Your task to perform on an android device: change alarm snooze length Image 0: 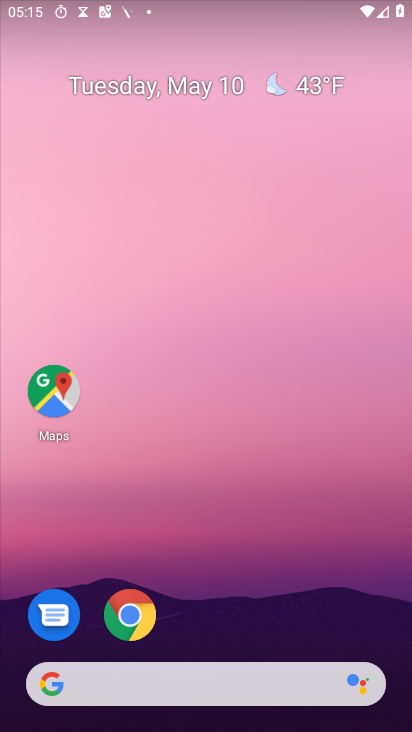
Step 0: drag from (302, 657) to (313, 66)
Your task to perform on an android device: change alarm snooze length Image 1: 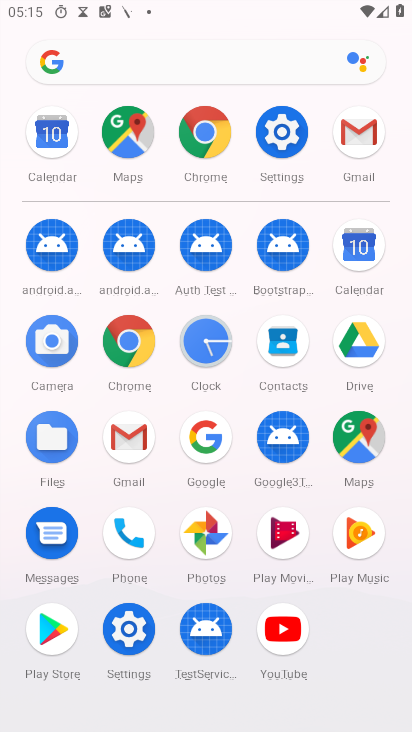
Step 1: click (205, 349)
Your task to perform on an android device: change alarm snooze length Image 2: 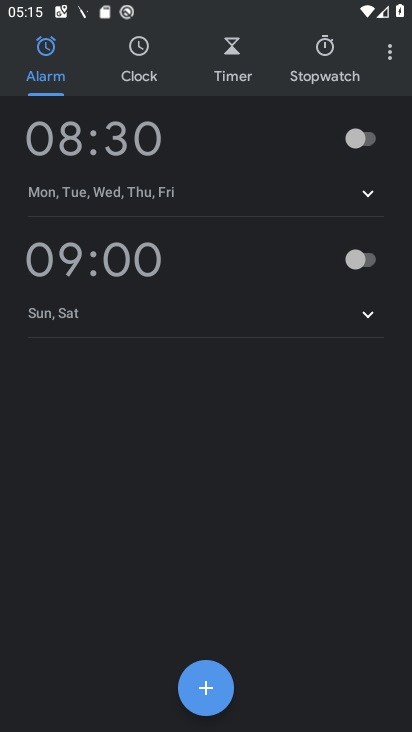
Step 2: click (384, 54)
Your task to perform on an android device: change alarm snooze length Image 3: 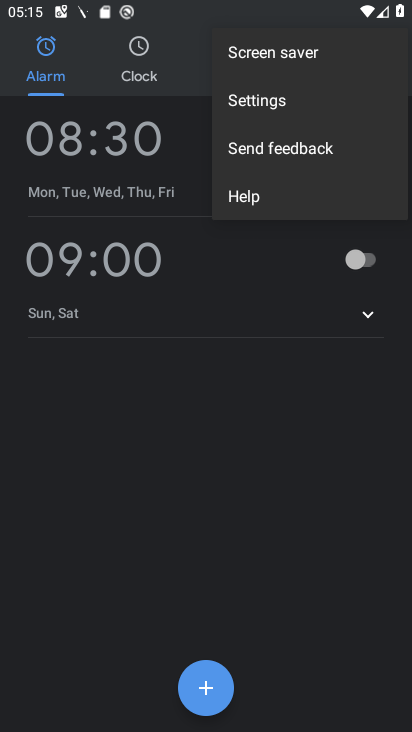
Step 3: click (285, 112)
Your task to perform on an android device: change alarm snooze length Image 4: 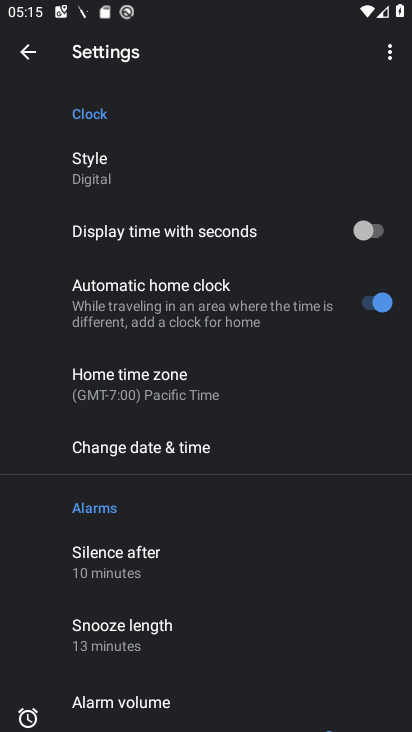
Step 4: click (190, 635)
Your task to perform on an android device: change alarm snooze length Image 5: 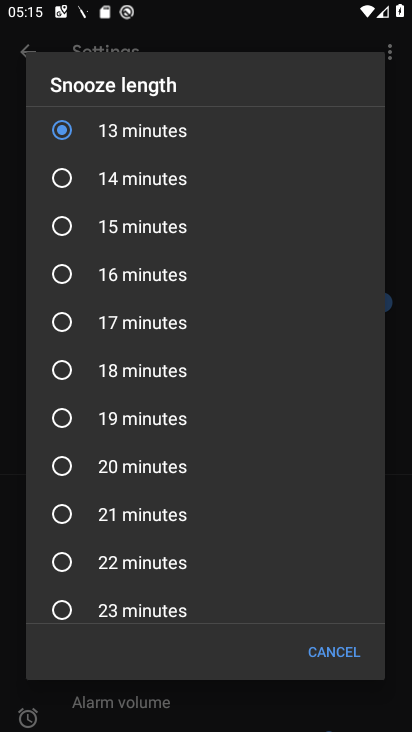
Step 5: click (67, 235)
Your task to perform on an android device: change alarm snooze length Image 6: 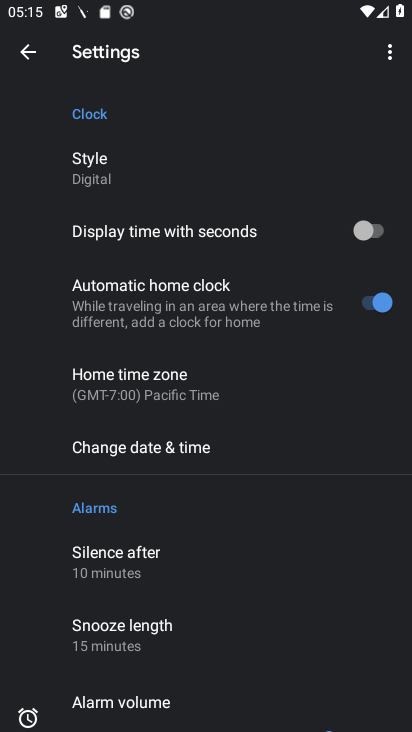
Step 6: task complete